Your task to perform on an android device: open wifi settings Image 0: 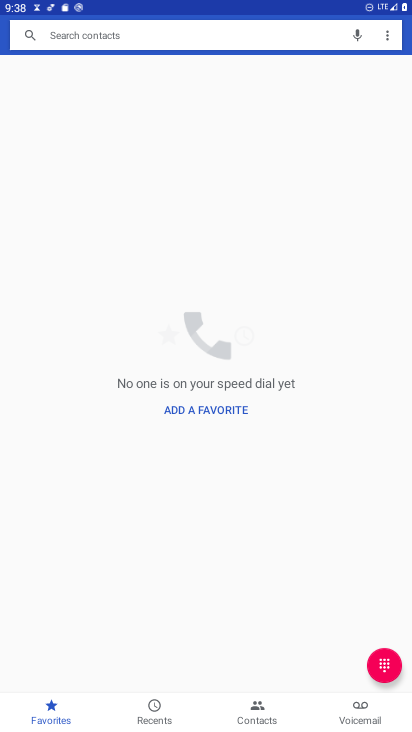
Step 0: press home button
Your task to perform on an android device: open wifi settings Image 1: 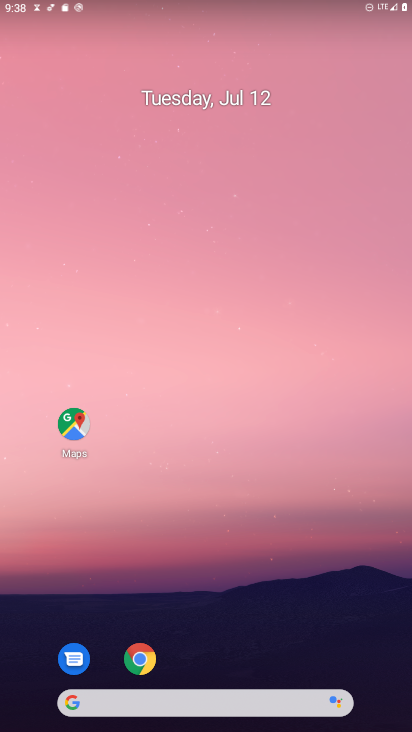
Step 1: drag from (195, 698) to (262, 193)
Your task to perform on an android device: open wifi settings Image 2: 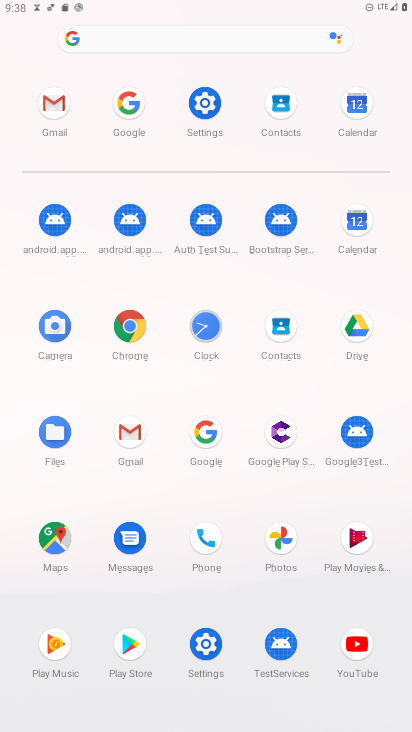
Step 2: click (206, 101)
Your task to perform on an android device: open wifi settings Image 3: 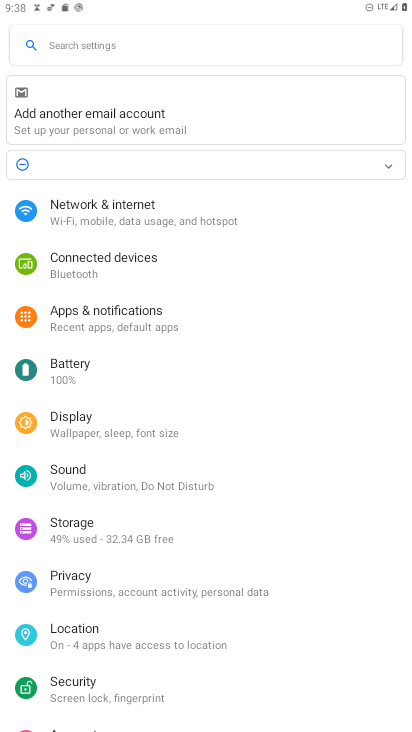
Step 3: click (138, 216)
Your task to perform on an android device: open wifi settings Image 4: 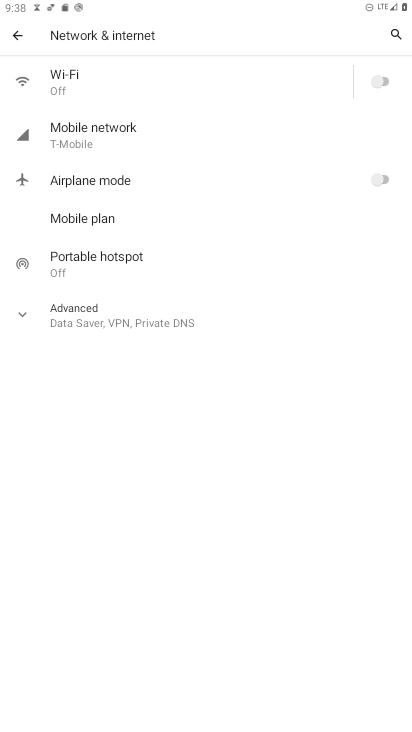
Step 4: click (75, 85)
Your task to perform on an android device: open wifi settings Image 5: 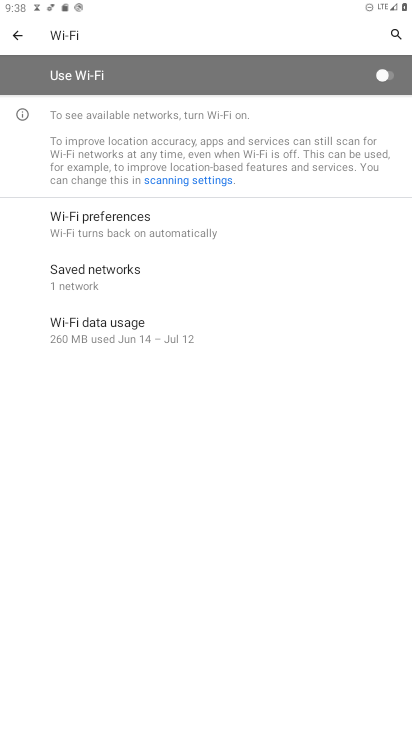
Step 5: task complete